Your task to perform on an android device: empty trash in the gmail app Image 0: 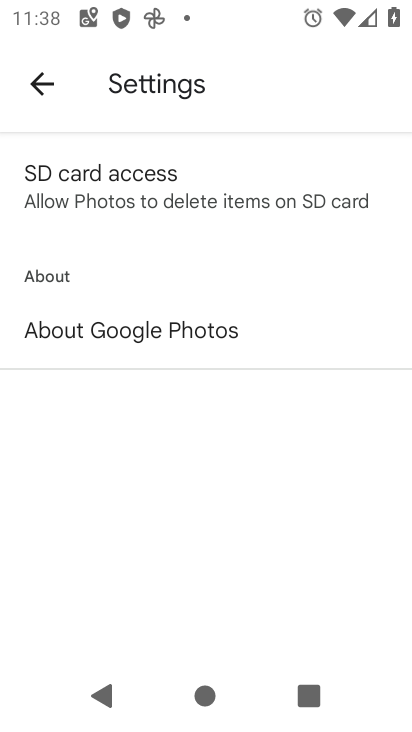
Step 0: press home button
Your task to perform on an android device: empty trash in the gmail app Image 1: 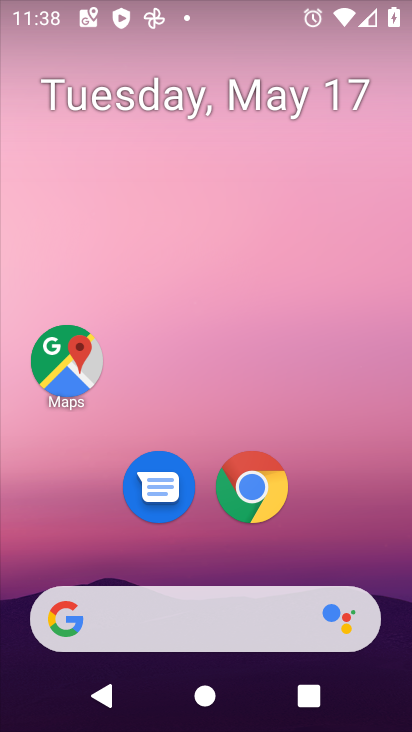
Step 1: drag from (329, 535) to (302, 83)
Your task to perform on an android device: empty trash in the gmail app Image 2: 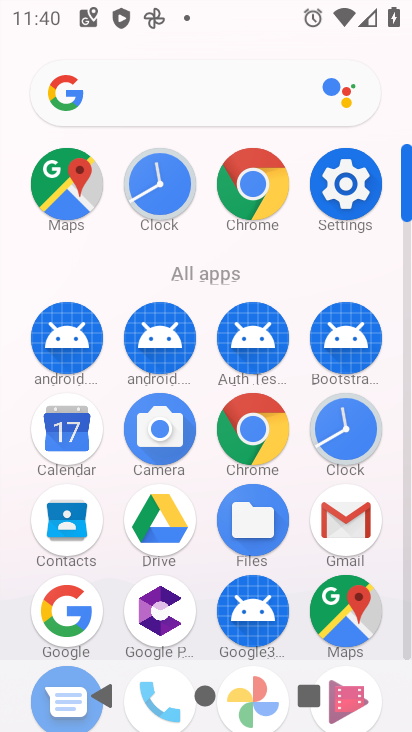
Step 2: click (339, 524)
Your task to perform on an android device: empty trash in the gmail app Image 3: 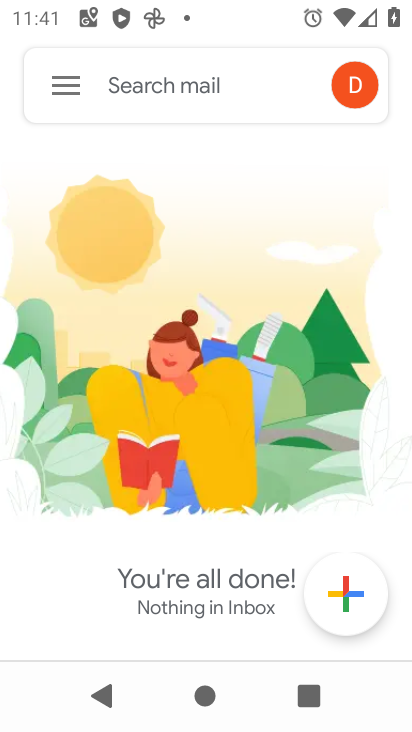
Step 3: click (63, 58)
Your task to perform on an android device: empty trash in the gmail app Image 4: 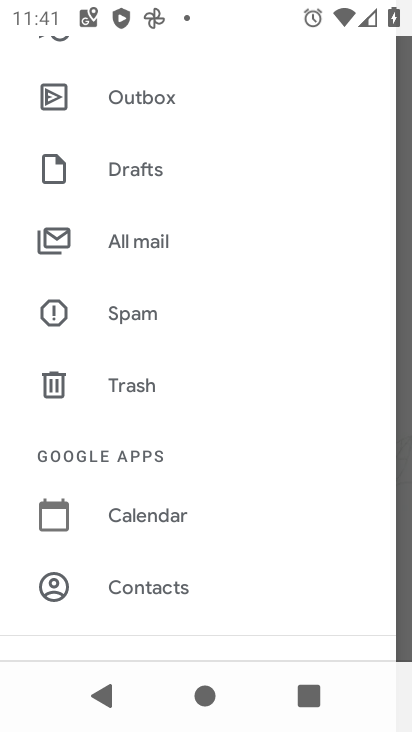
Step 4: click (151, 375)
Your task to perform on an android device: empty trash in the gmail app Image 5: 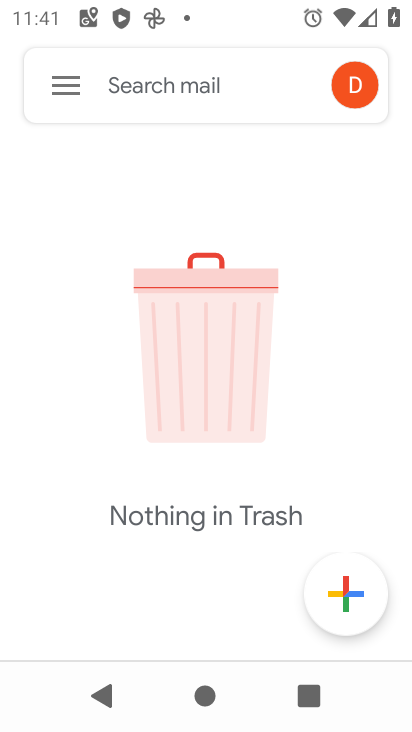
Step 5: task complete